Your task to perform on an android device: turn vacation reply on in the gmail app Image 0: 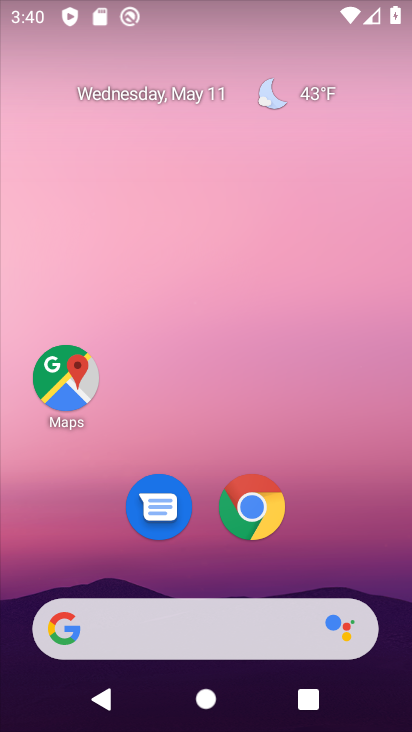
Step 0: drag from (393, 638) to (292, 70)
Your task to perform on an android device: turn vacation reply on in the gmail app Image 1: 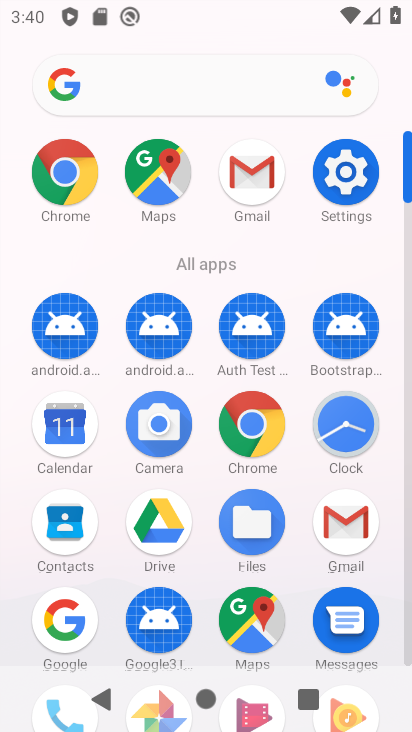
Step 1: click (405, 653)
Your task to perform on an android device: turn vacation reply on in the gmail app Image 2: 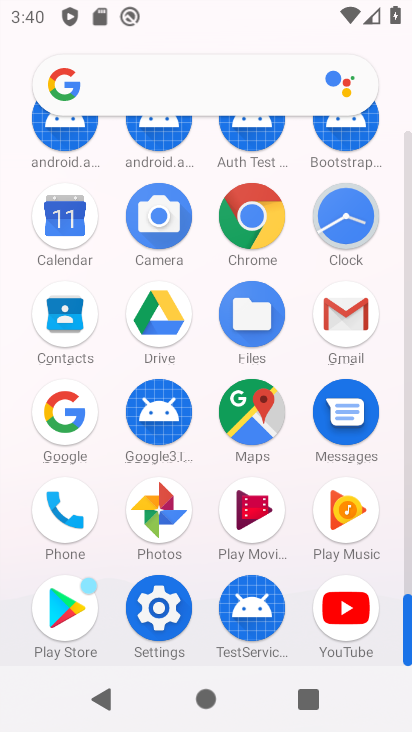
Step 2: click (344, 314)
Your task to perform on an android device: turn vacation reply on in the gmail app Image 3: 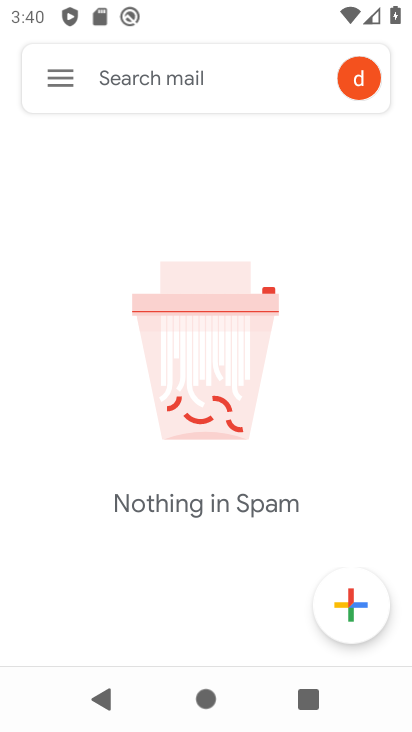
Step 3: click (54, 80)
Your task to perform on an android device: turn vacation reply on in the gmail app Image 4: 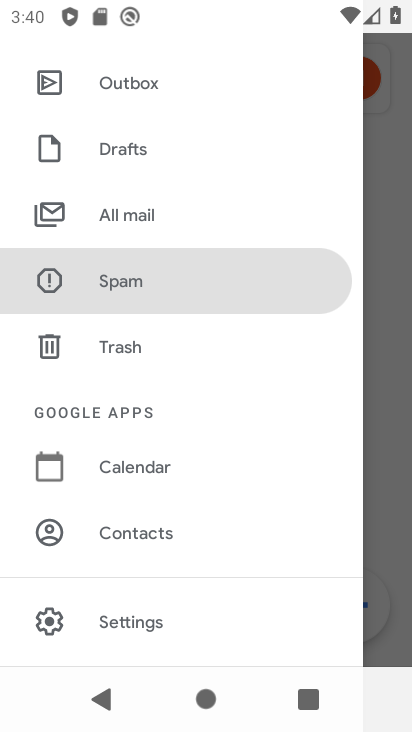
Step 4: drag from (215, 581) to (229, 183)
Your task to perform on an android device: turn vacation reply on in the gmail app Image 5: 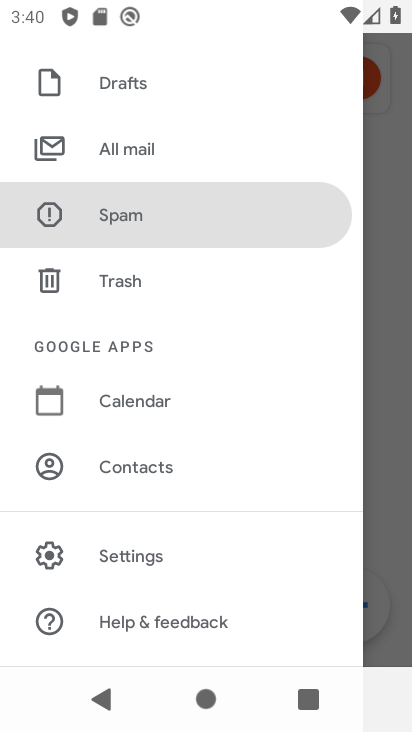
Step 5: click (113, 557)
Your task to perform on an android device: turn vacation reply on in the gmail app Image 6: 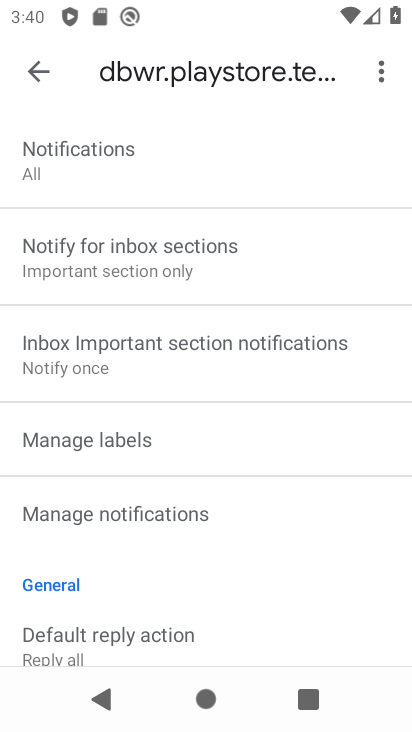
Step 6: task complete